Your task to perform on an android device: Open calendar and show me the first week of next month Image 0: 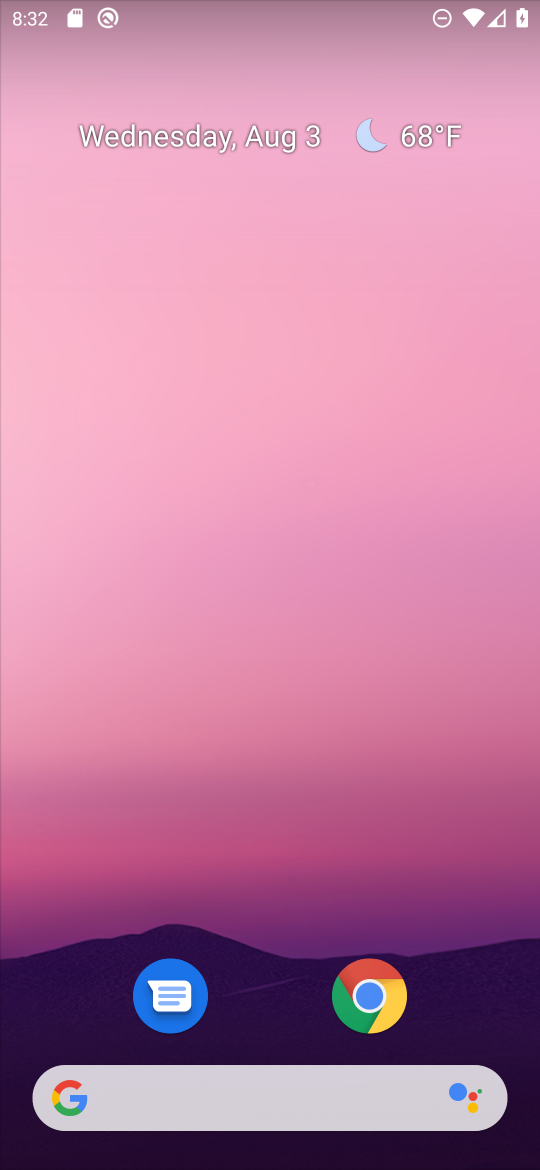
Step 0: drag from (268, 946) to (320, 0)
Your task to perform on an android device: Open calendar and show me the first week of next month Image 1: 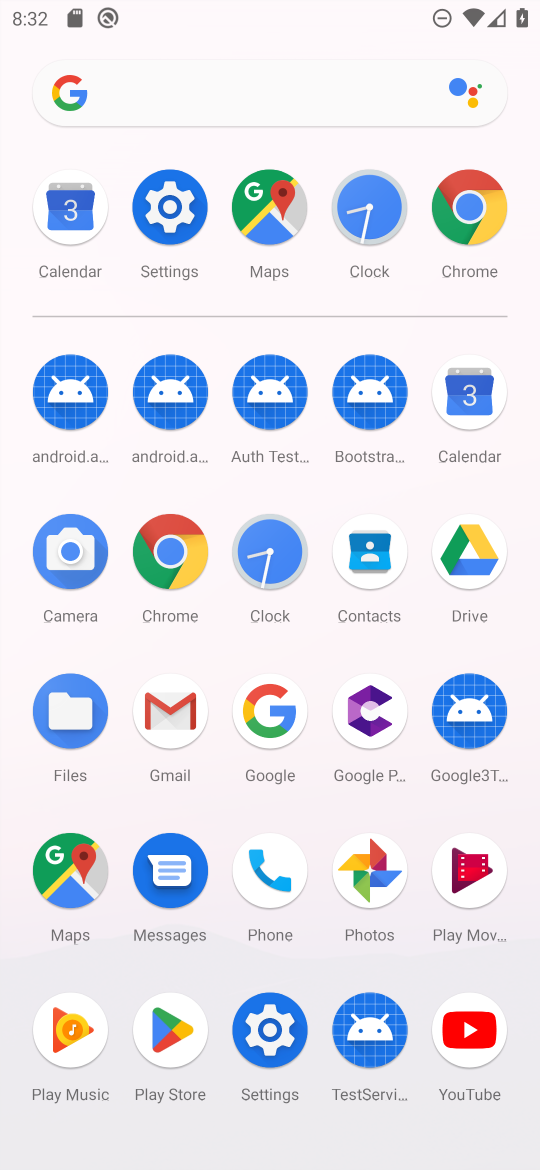
Step 1: click (73, 216)
Your task to perform on an android device: Open calendar and show me the first week of next month Image 2: 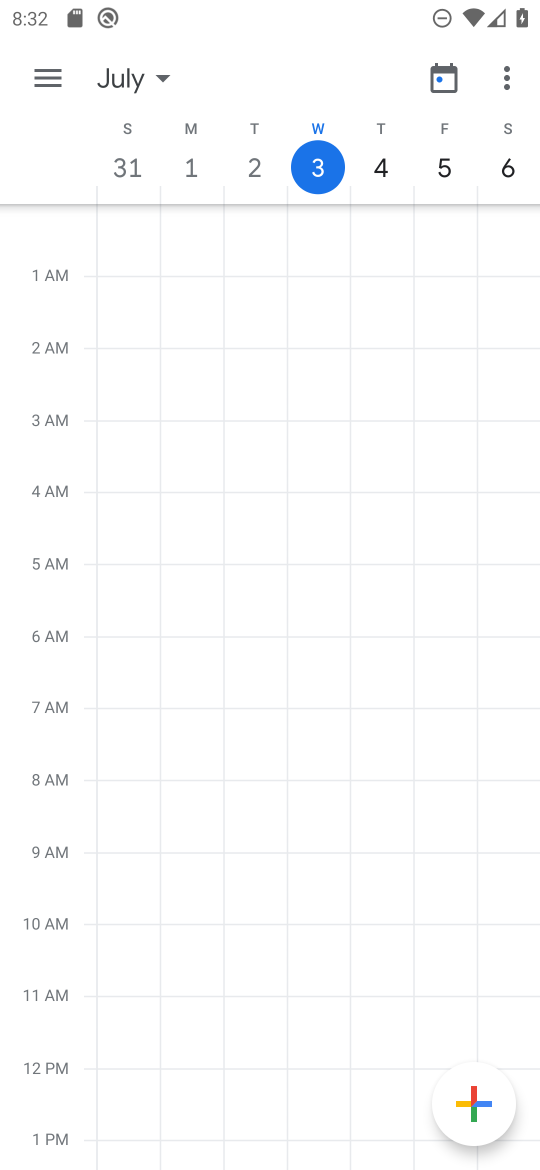
Step 2: task complete